Your task to perform on an android device: Open CNN.com Image 0: 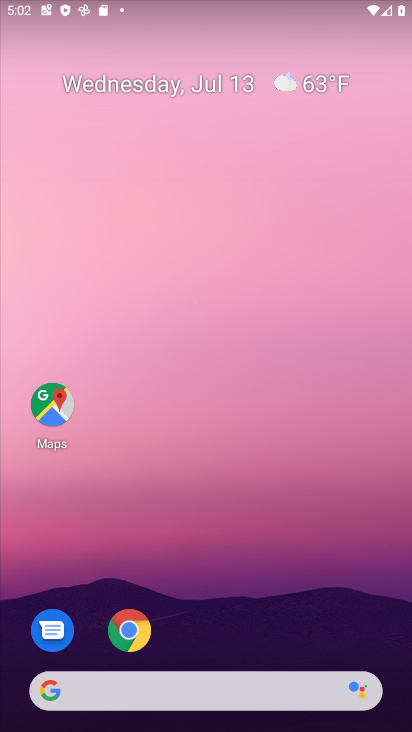
Step 0: press home button
Your task to perform on an android device: Open CNN.com Image 1: 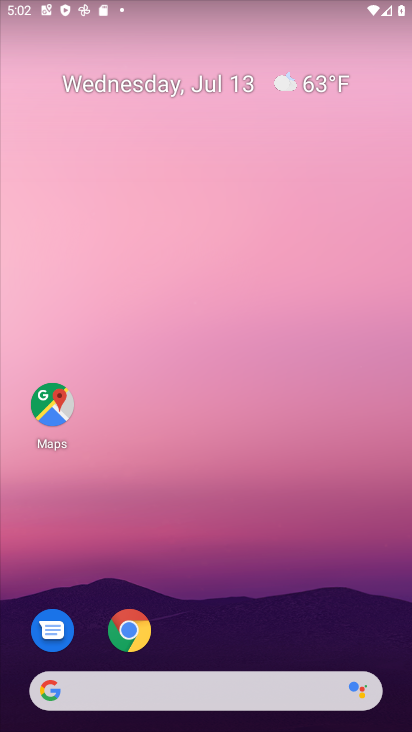
Step 1: click (47, 697)
Your task to perform on an android device: Open CNN.com Image 2: 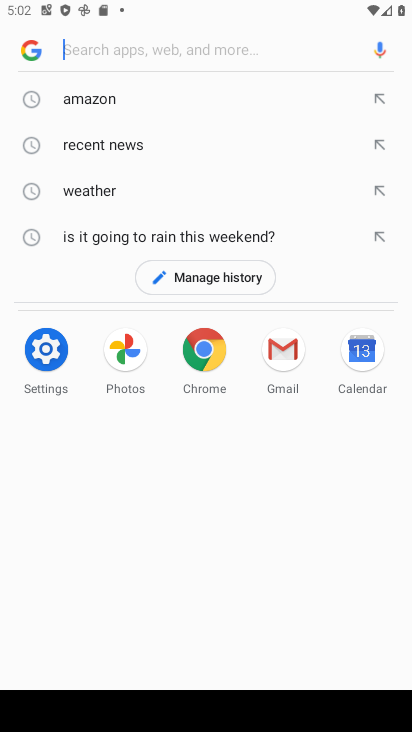
Step 2: type "CNN.com"
Your task to perform on an android device: Open CNN.com Image 3: 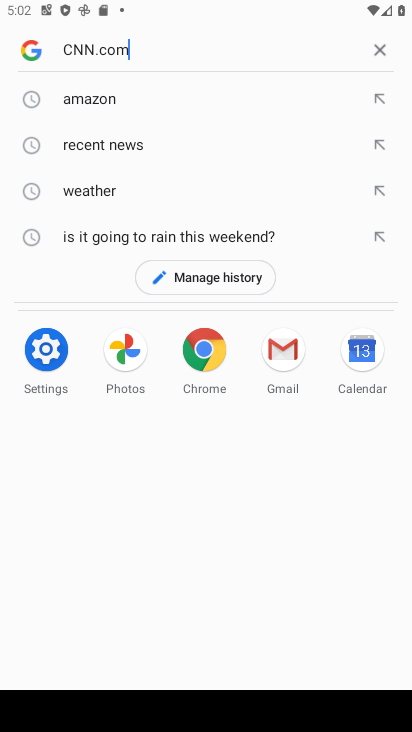
Step 3: press enter
Your task to perform on an android device: Open CNN.com Image 4: 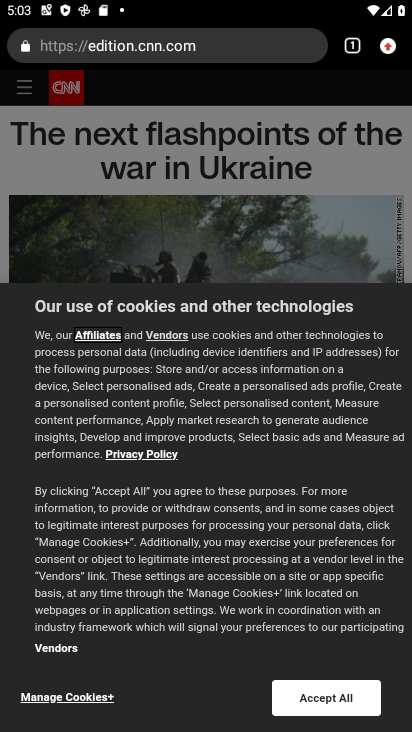
Step 4: task complete